Your task to perform on an android device: find photos in the google photos app Image 0: 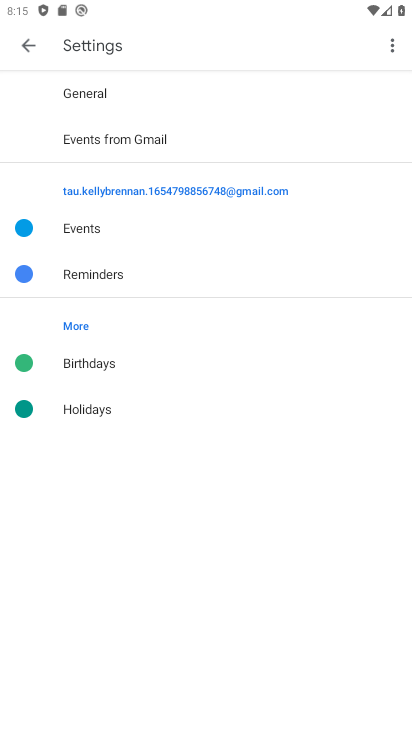
Step 0: press home button
Your task to perform on an android device: find photos in the google photos app Image 1: 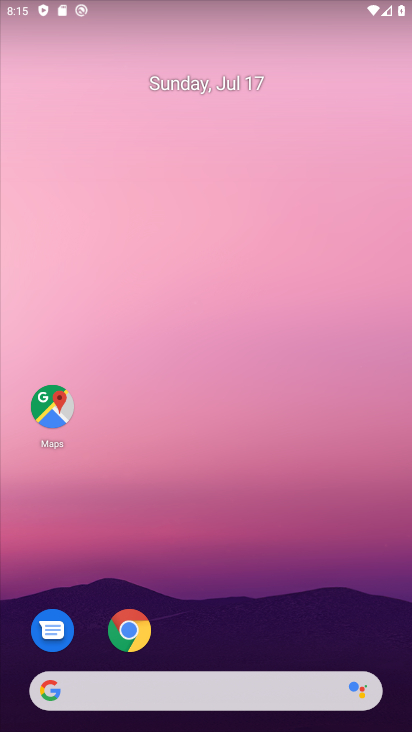
Step 1: drag from (317, 634) to (341, 111)
Your task to perform on an android device: find photos in the google photos app Image 2: 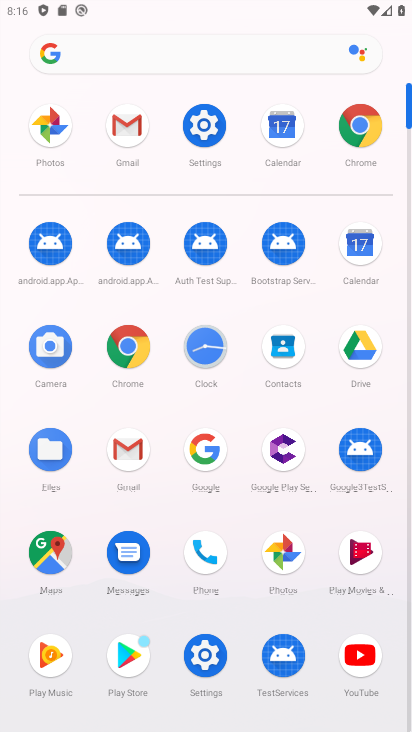
Step 2: click (291, 559)
Your task to perform on an android device: find photos in the google photos app Image 3: 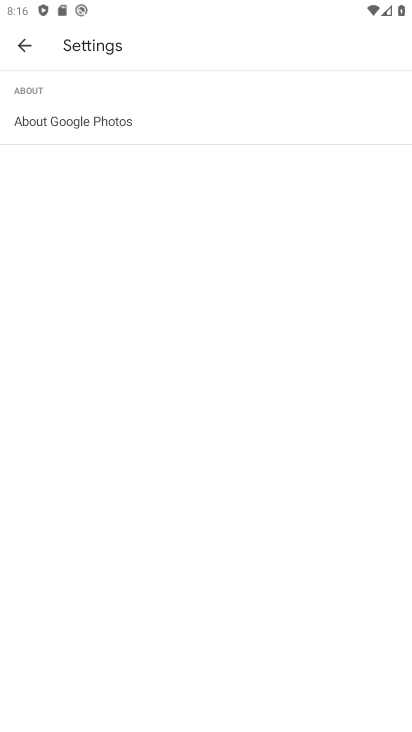
Step 3: task complete